Your task to perform on an android device: Open Chrome and go to settings Image 0: 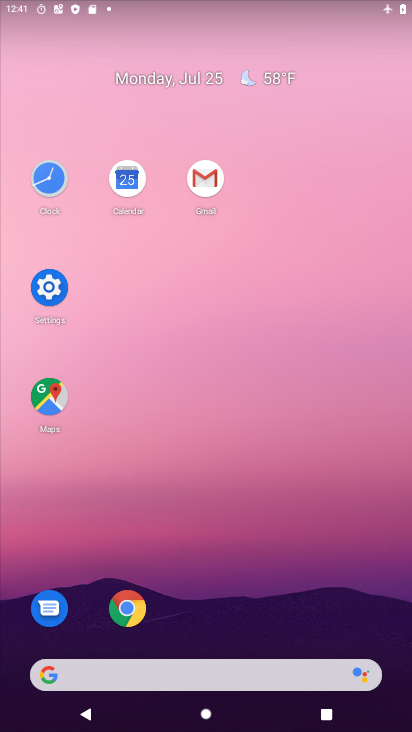
Step 0: click (138, 616)
Your task to perform on an android device: Open Chrome and go to settings Image 1: 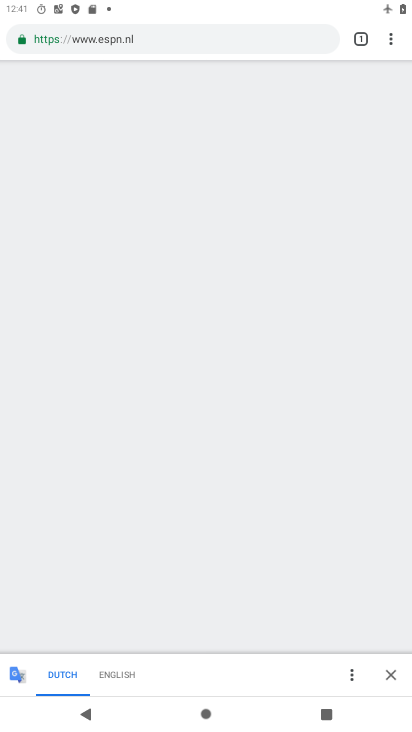
Step 1: click (389, 37)
Your task to perform on an android device: Open Chrome and go to settings Image 2: 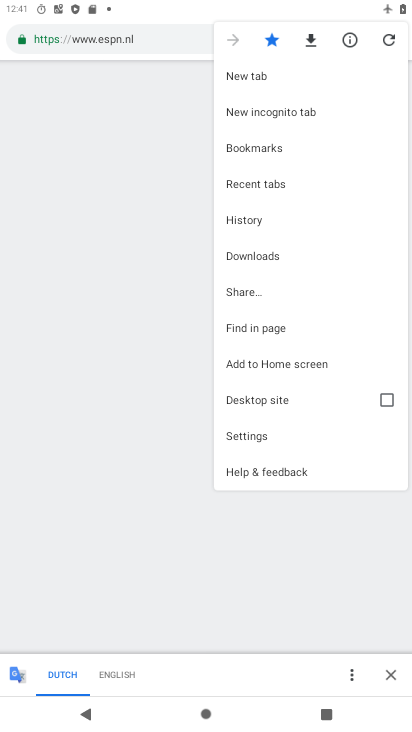
Step 2: click (260, 432)
Your task to perform on an android device: Open Chrome and go to settings Image 3: 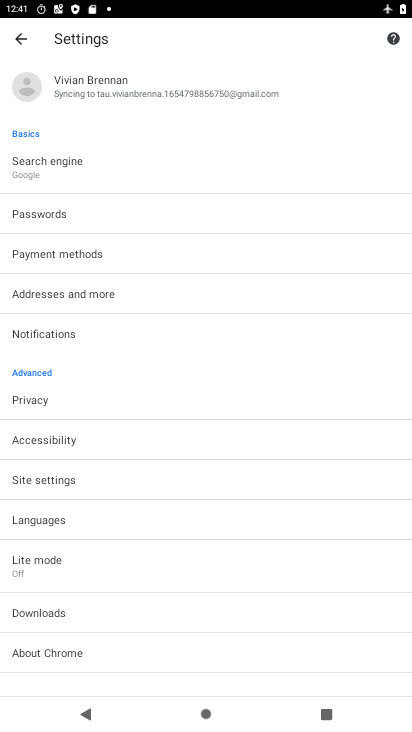
Step 3: task complete